Your task to perform on an android device: toggle notification dots Image 0: 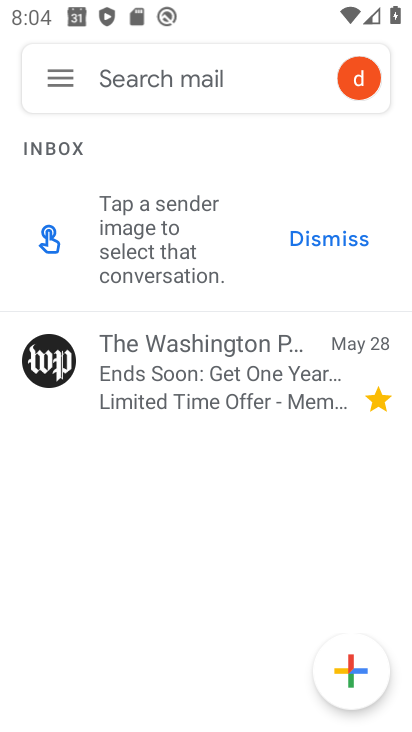
Step 0: press home button
Your task to perform on an android device: toggle notification dots Image 1: 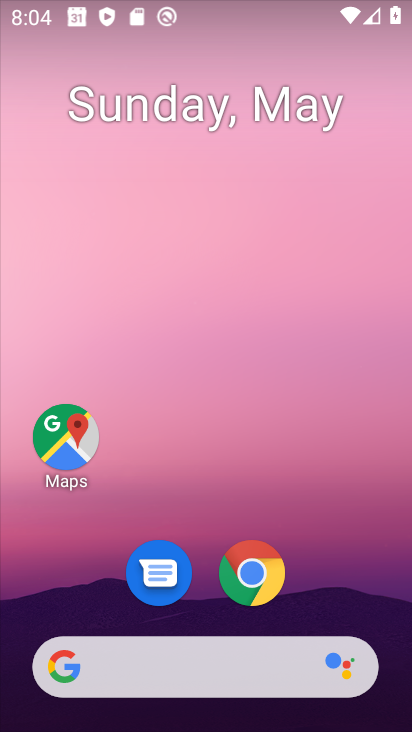
Step 1: drag from (361, 621) to (278, 130)
Your task to perform on an android device: toggle notification dots Image 2: 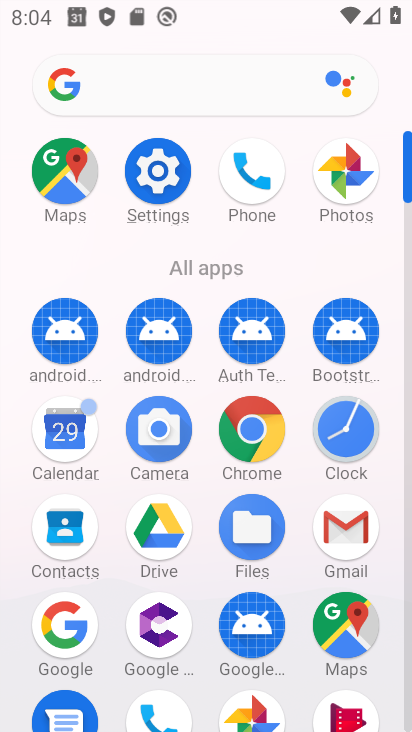
Step 2: click (175, 175)
Your task to perform on an android device: toggle notification dots Image 3: 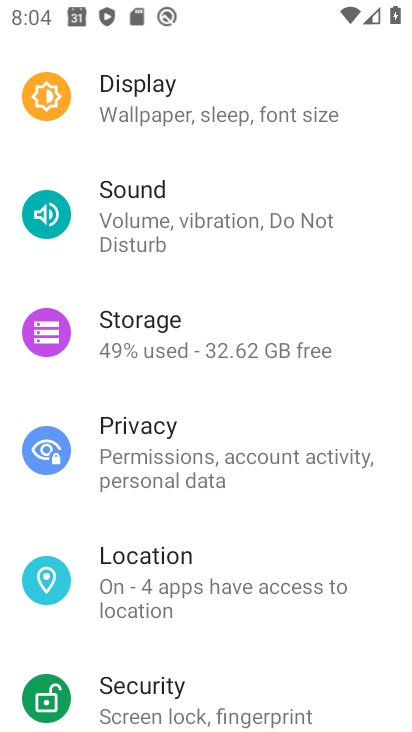
Step 3: drag from (212, 191) to (165, 594)
Your task to perform on an android device: toggle notification dots Image 4: 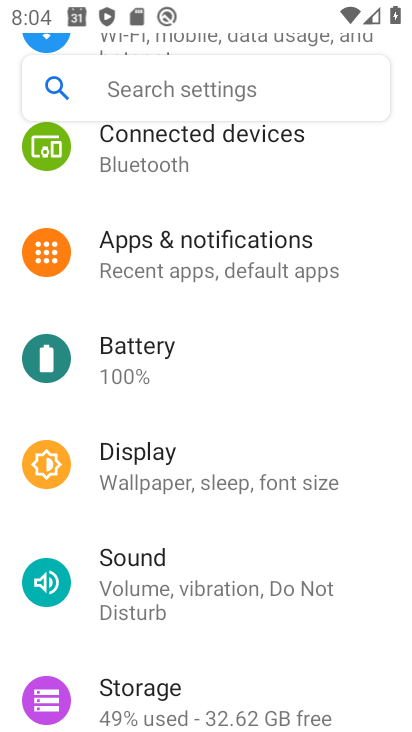
Step 4: click (209, 254)
Your task to perform on an android device: toggle notification dots Image 5: 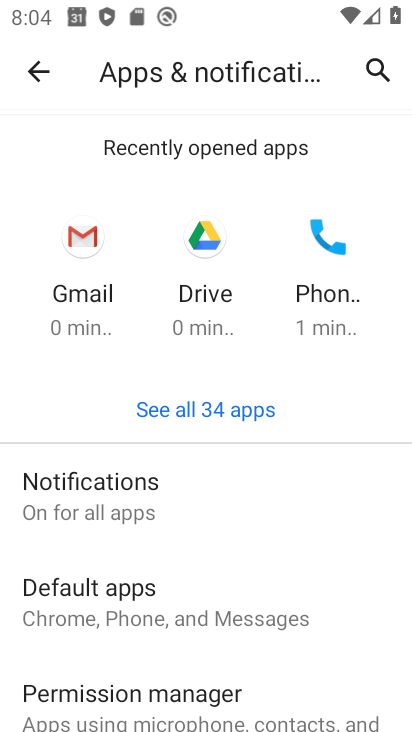
Step 5: drag from (259, 644) to (237, 443)
Your task to perform on an android device: toggle notification dots Image 6: 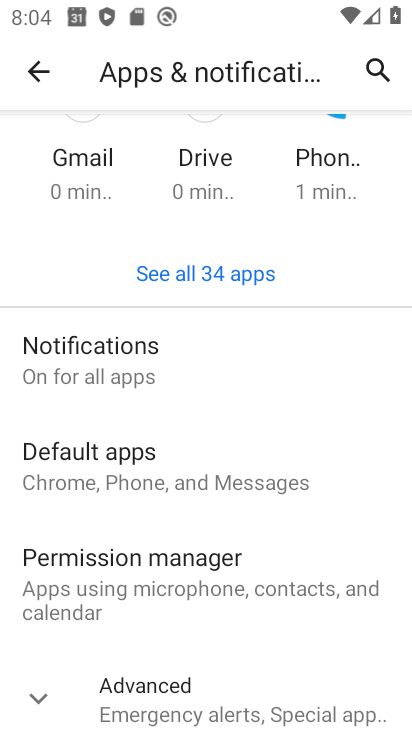
Step 6: click (213, 355)
Your task to perform on an android device: toggle notification dots Image 7: 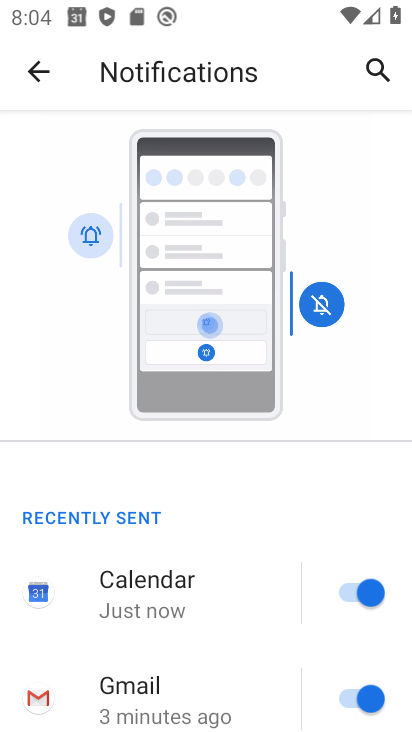
Step 7: drag from (251, 706) to (213, 314)
Your task to perform on an android device: toggle notification dots Image 8: 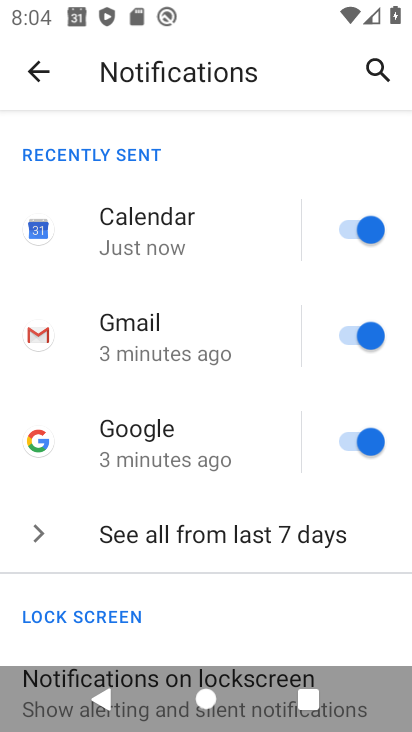
Step 8: drag from (251, 584) to (232, 182)
Your task to perform on an android device: toggle notification dots Image 9: 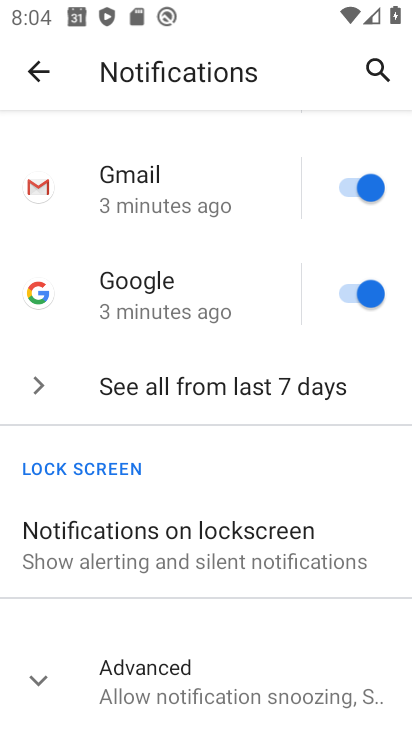
Step 9: click (205, 641)
Your task to perform on an android device: toggle notification dots Image 10: 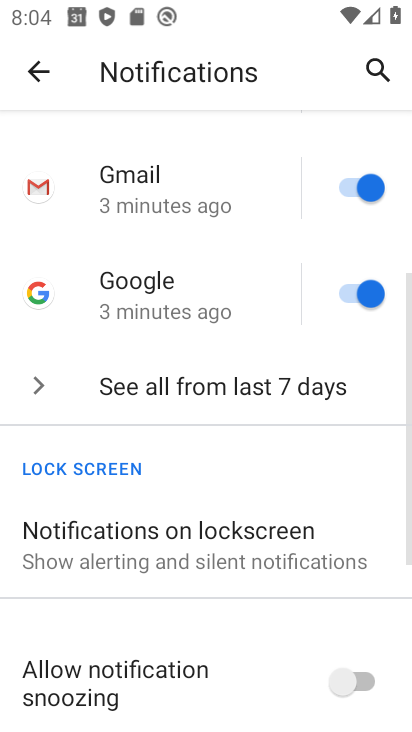
Step 10: drag from (214, 616) to (194, 318)
Your task to perform on an android device: toggle notification dots Image 11: 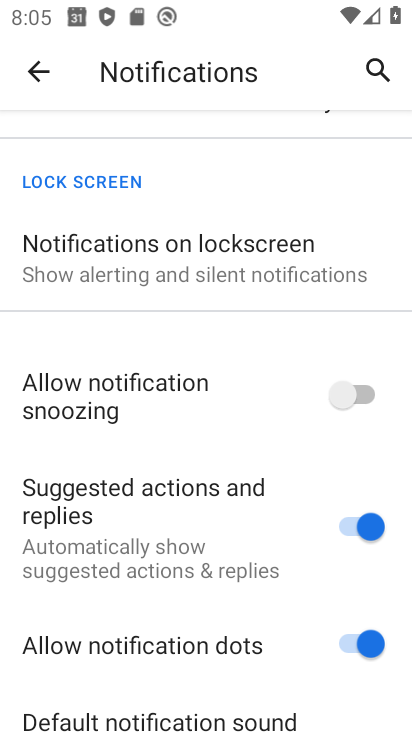
Step 11: click (366, 641)
Your task to perform on an android device: toggle notification dots Image 12: 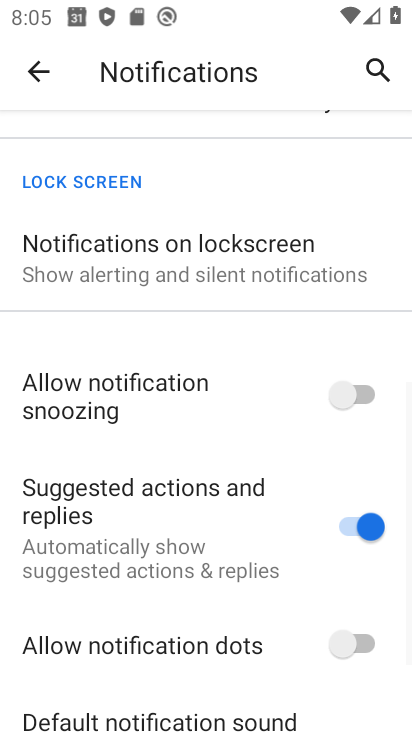
Step 12: task complete